Your task to perform on an android device: turn on priority inbox in the gmail app Image 0: 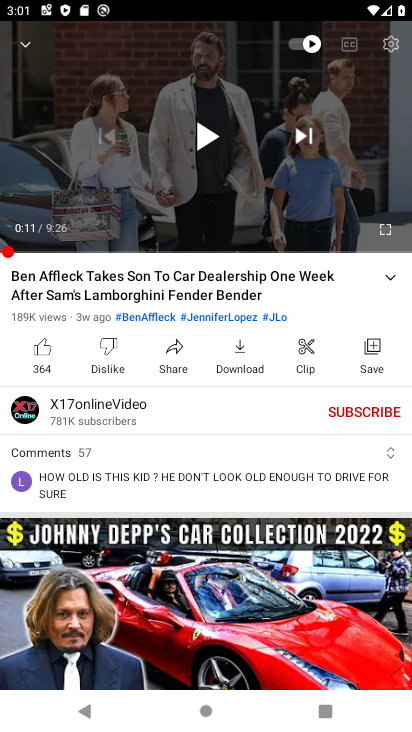
Step 0: press home button
Your task to perform on an android device: turn on priority inbox in the gmail app Image 1: 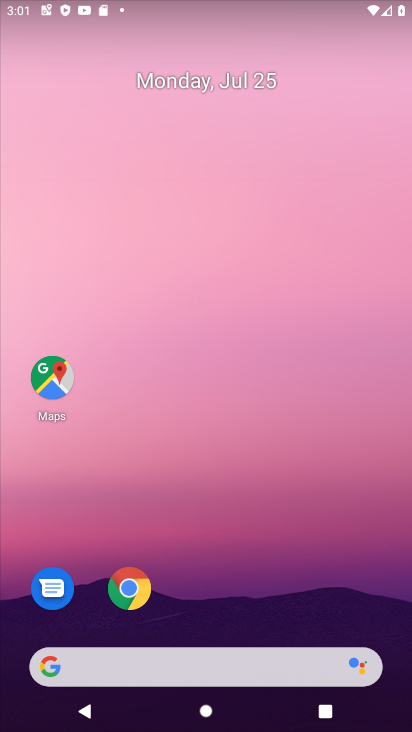
Step 1: drag from (191, 490) to (176, 268)
Your task to perform on an android device: turn on priority inbox in the gmail app Image 2: 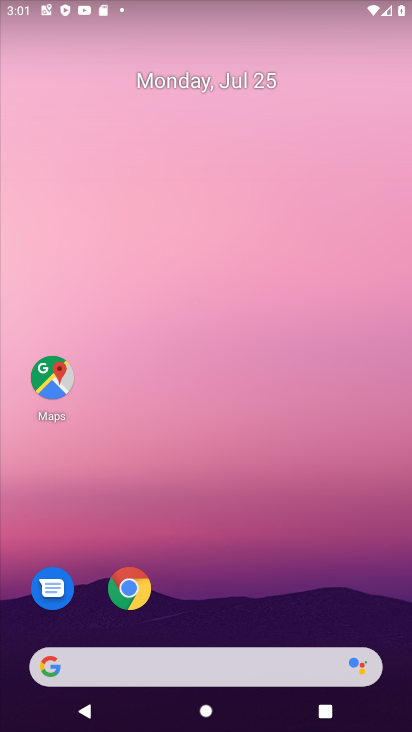
Step 2: drag from (209, 538) to (148, 98)
Your task to perform on an android device: turn on priority inbox in the gmail app Image 3: 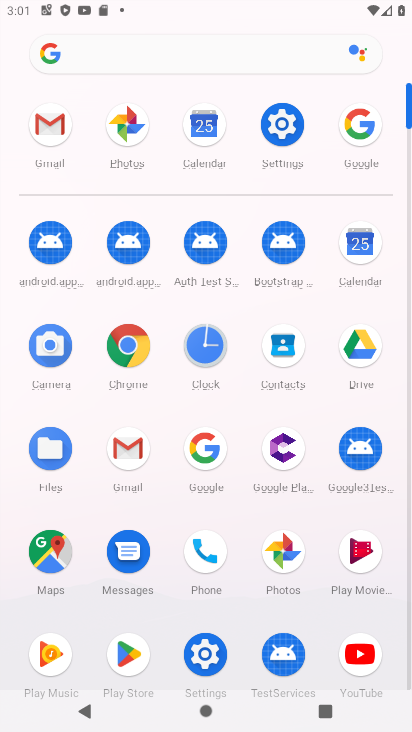
Step 3: click (42, 145)
Your task to perform on an android device: turn on priority inbox in the gmail app Image 4: 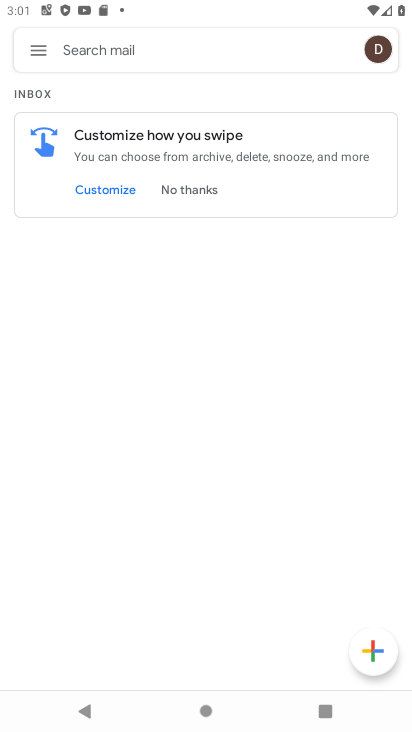
Step 4: click (30, 64)
Your task to perform on an android device: turn on priority inbox in the gmail app Image 5: 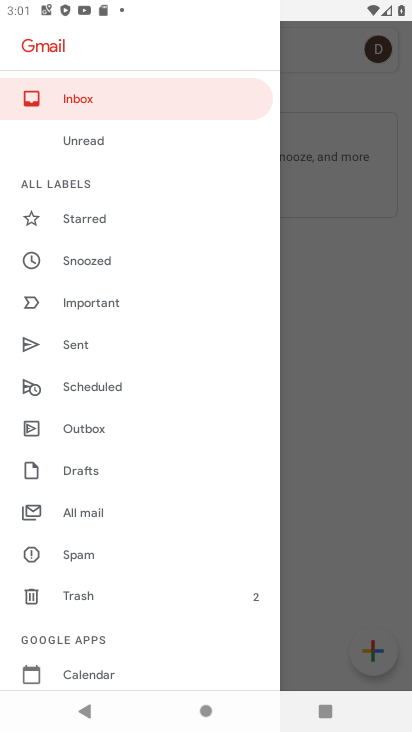
Step 5: drag from (147, 619) to (161, 246)
Your task to perform on an android device: turn on priority inbox in the gmail app Image 6: 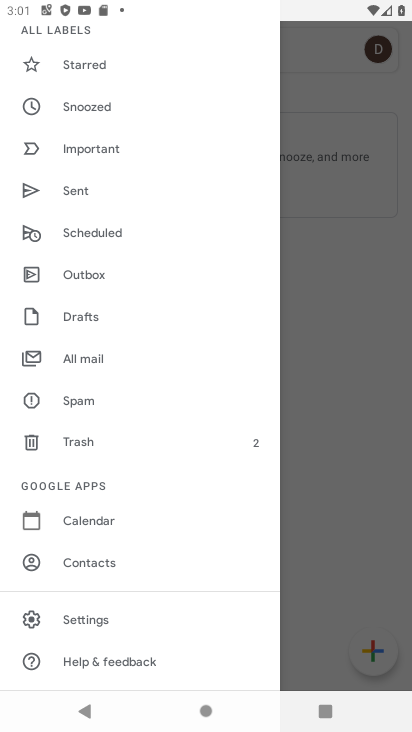
Step 6: click (95, 627)
Your task to perform on an android device: turn on priority inbox in the gmail app Image 7: 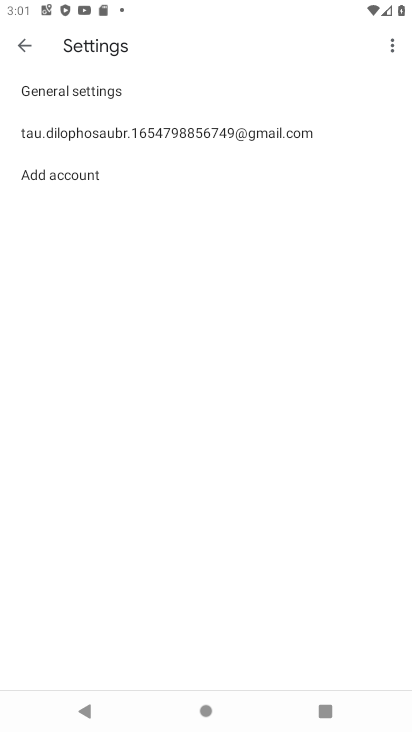
Step 7: click (75, 128)
Your task to perform on an android device: turn on priority inbox in the gmail app Image 8: 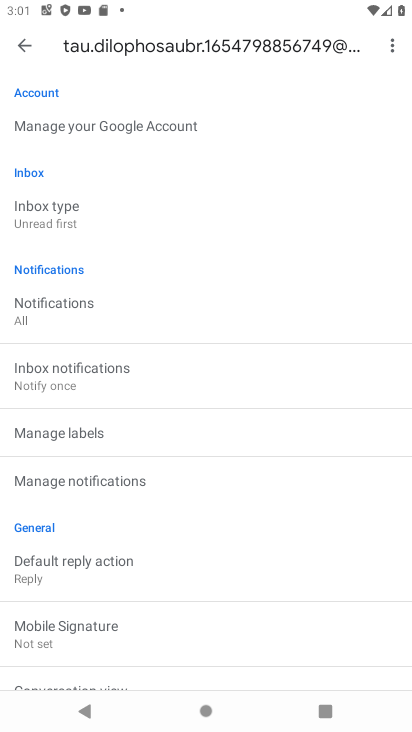
Step 8: click (111, 207)
Your task to perform on an android device: turn on priority inbox in the gmail app Image 9: 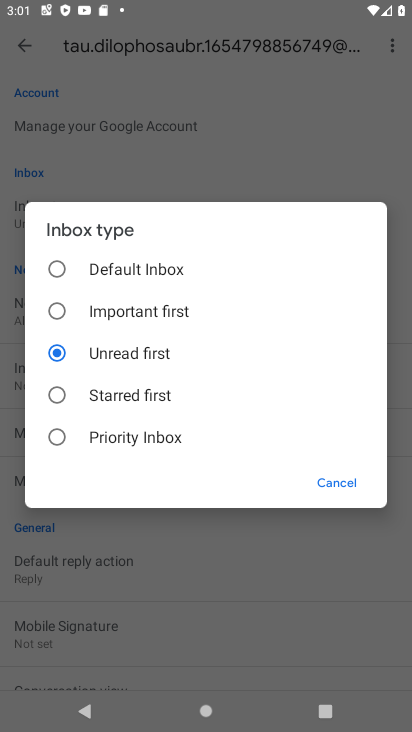
Step 9: click (99, 442)
Your task to perform on an android device: turn on priority inbox in the gmail app Image 10: 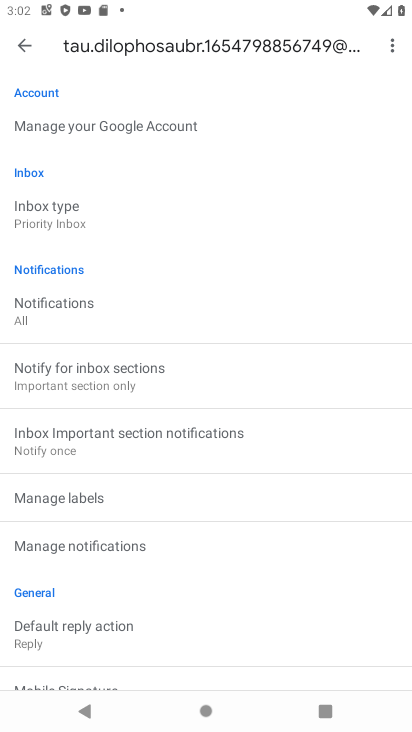
Step 10: task complete